Your task to perform on an android device: Go to internet settings Image 0: 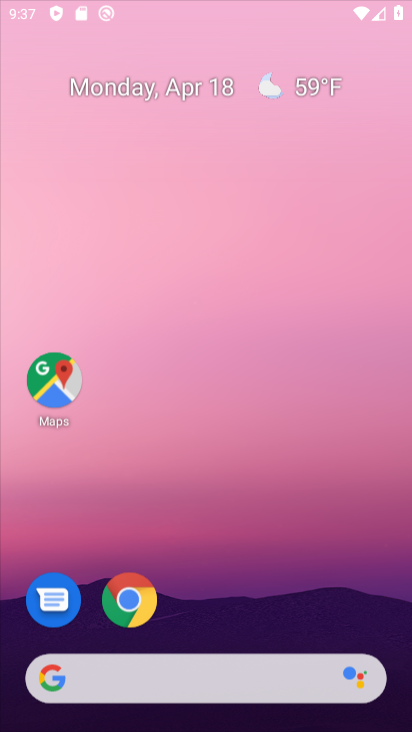
Step 0: click (217, 4)
Your task to perform on an android device: Go to internet settings Image 1: 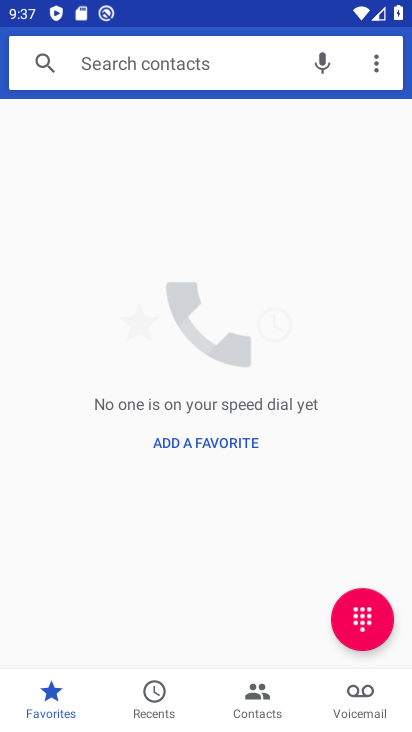
Step 1: press home button
Your task to perform on an android device: Go to internet settings Image 2: 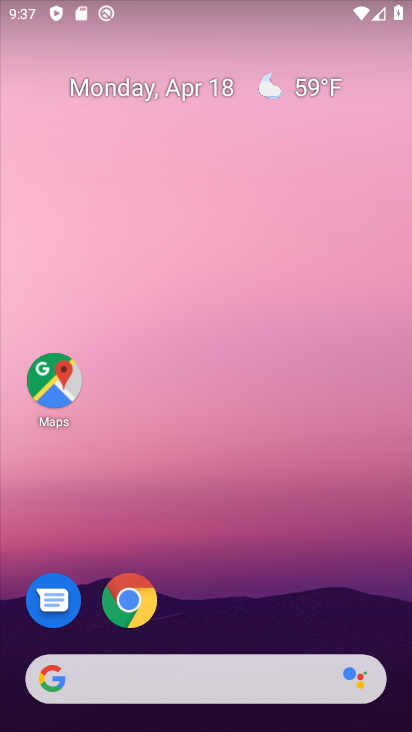
Step 2: drag from (237, 622) to (178, 11)
Your task to perform on an android device: Go to internet settings Image 3: 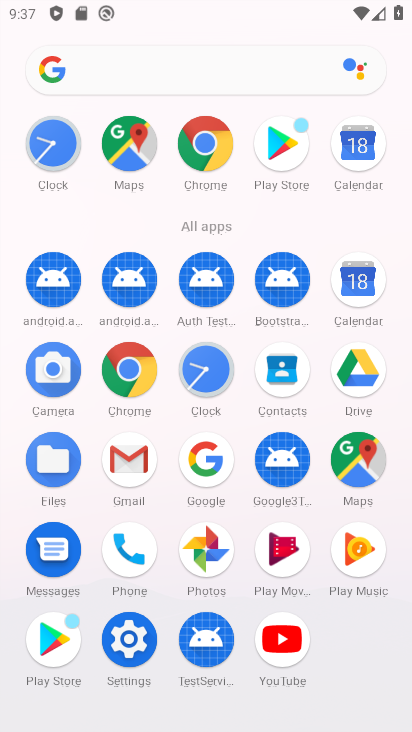
Step 3: click (123, 642)
Your task to perform on an android device: Go to internet settings Image 4: 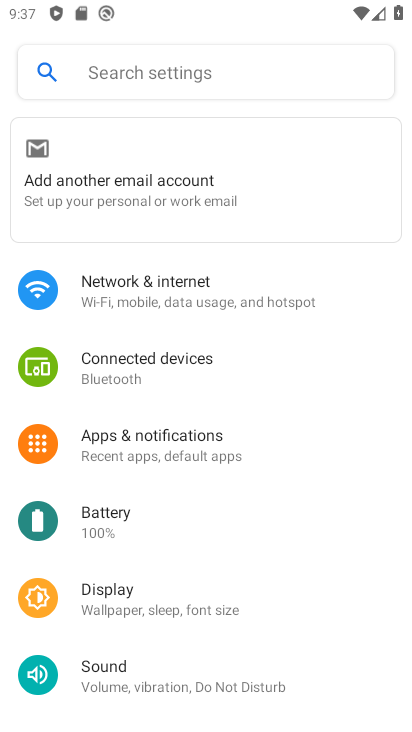
Step 4: click (148, 277)
Your task to perform on an android device: Go to internet settings Image 5: 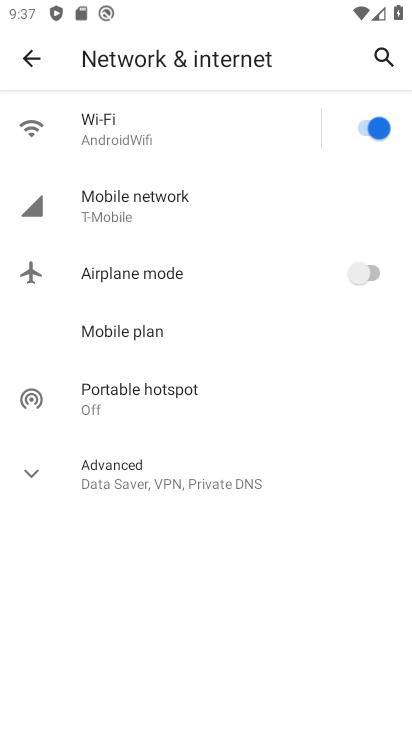
Step 5: click (57, 470)
Your task to perform on an android device: Go to internet settings Image 6: 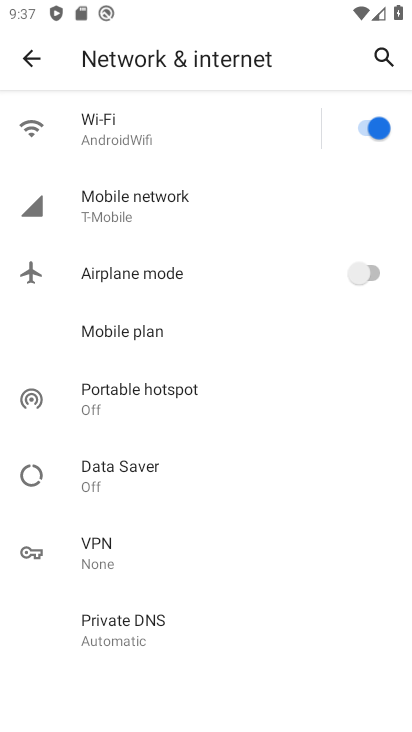
Step 6: drag from (210, 549) to (184, 228)
Your task to perform on an android device: Go to internet settings Image 7: 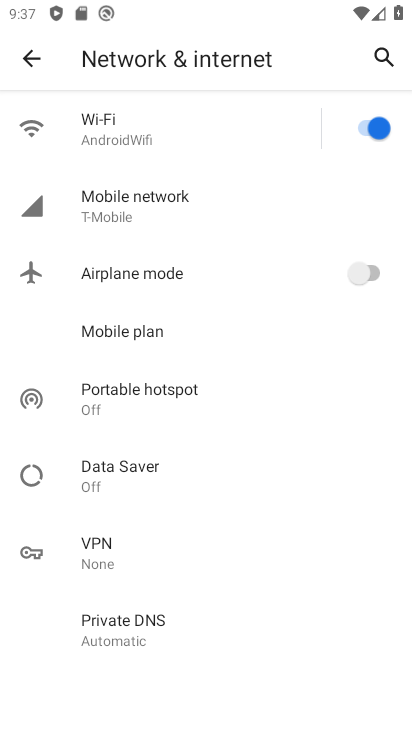
Step 7: click (166, 190)
Your task to perform on an android device: Go to internet settings Image 8: 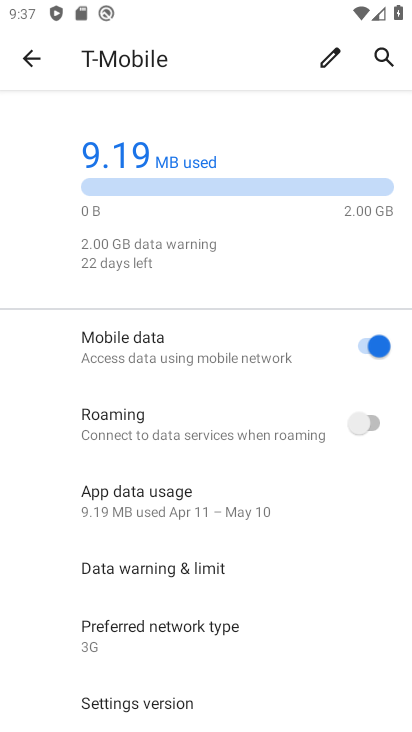
Step 8: drag from (265, 507) to (224, 174)
Your task to perform on an android device: Go to internet settings Image 9: 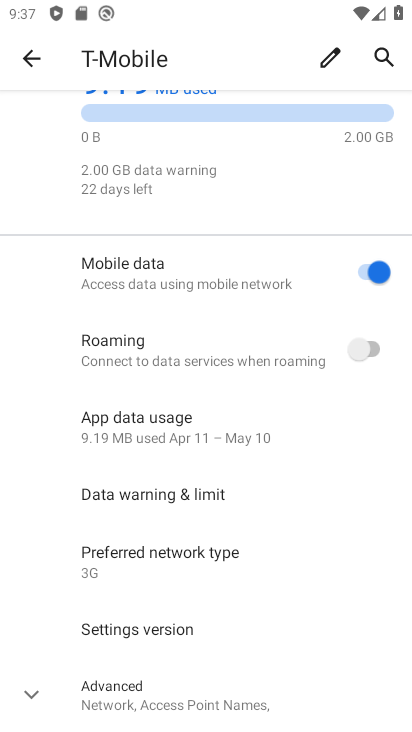
Step 9: click (115, 699)
Your task to perform on an android device: Go to internet settings Image 10: 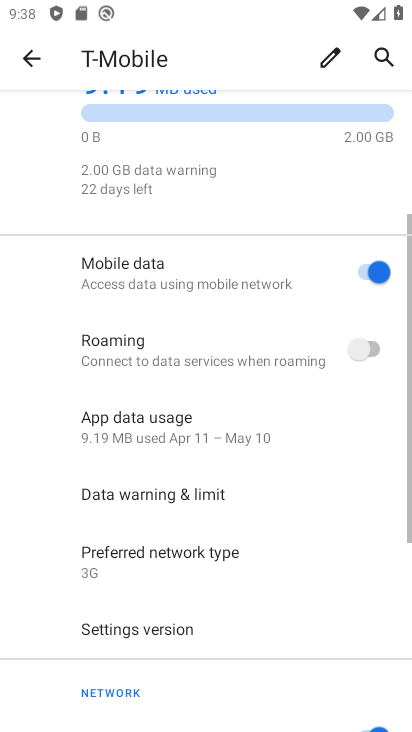
Step 10: task complete